Your task to perform on an android device: toggle pop-ups in chrome Image 0: 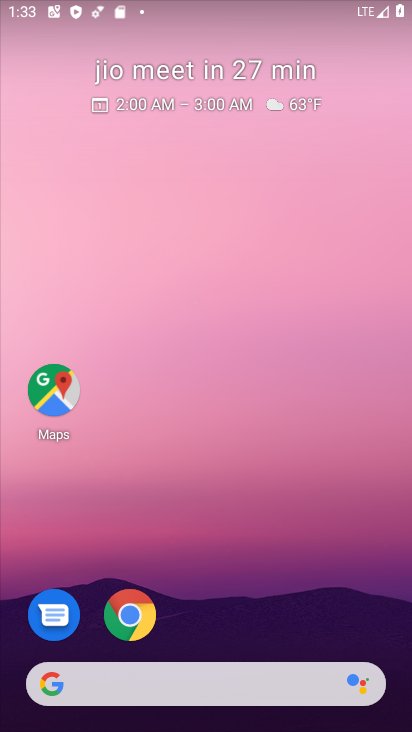
Step 0: click (118, 613)
Your task to perform on an android device: toggle pop-ups in chrome Image 1: 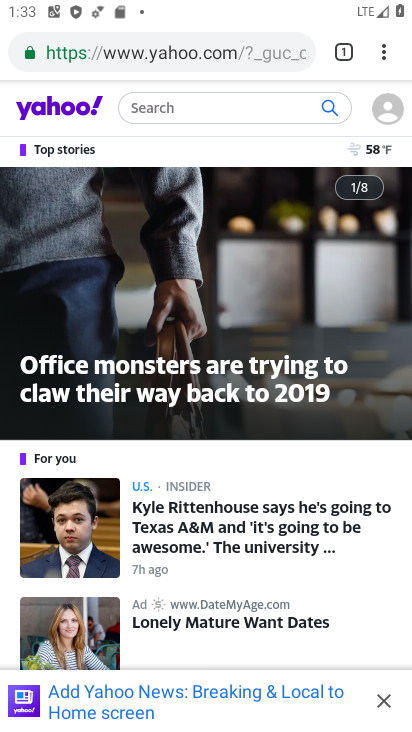
Step 1: drag from (386, 47) to (264, 659)
Your task to perform on an android device: toggle pop-ups in chrome Image 2: 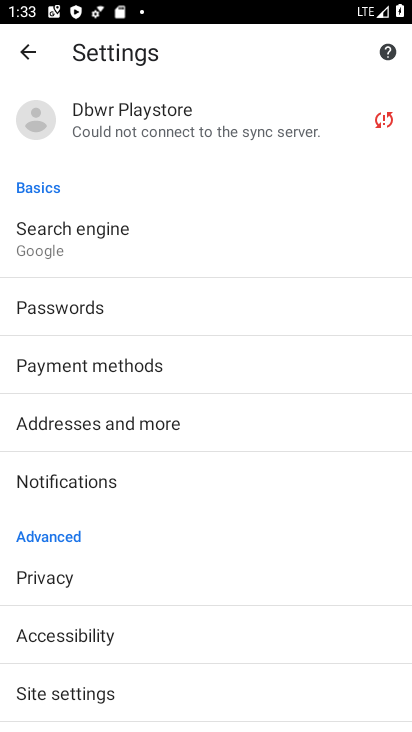
Step 2: drag from (231, 654) to (299, 382)
Your task to perform on an android device: toggle pop-ups in chrome Image 3: 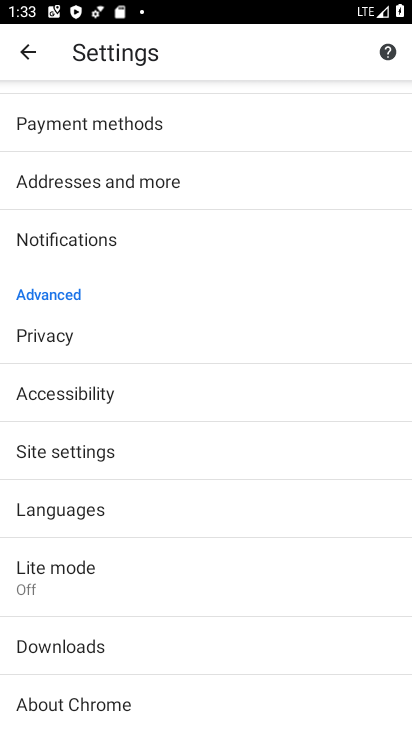
Step 3: click (138, 465)
Your task to perform on an android device: toggle pop-ups in chrome Image 4: 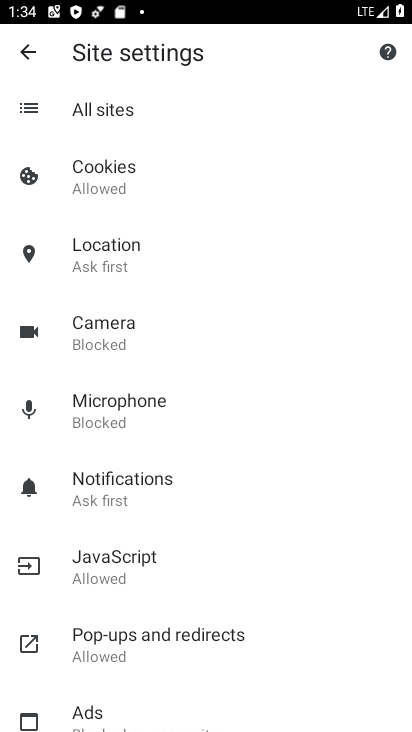
Step 4: click (171, 654)
Your task to perform on an android device: toggle pop-ups in chrome Image 5: 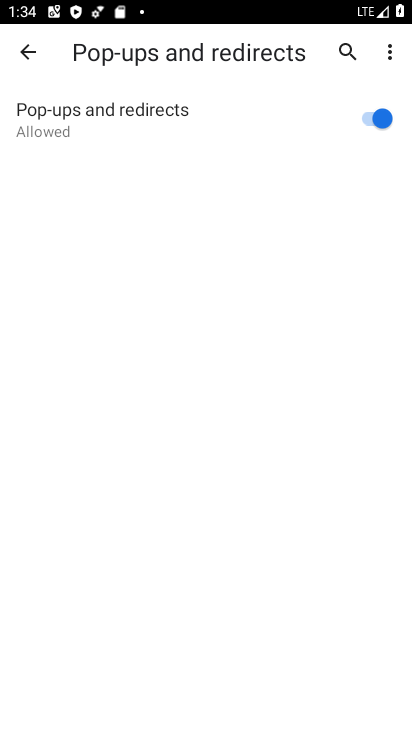
Step 5: click (366, 109)
Your task to perform on an android device: toggle pop-ups in chrome Image 6: 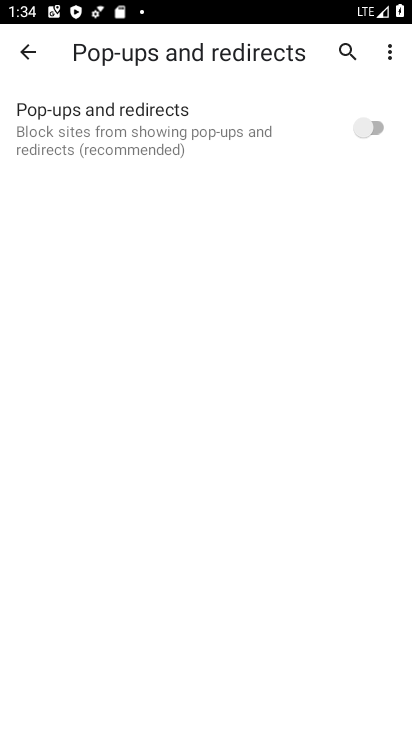
Step 6: task complete